Your task to perform on an android device: open chrome and create a bookmark for the current page Image 0: 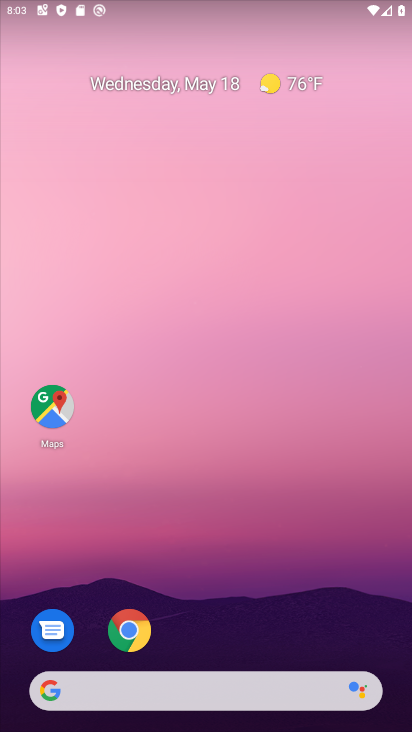
Step 0: click (139, 623)
Your task to perform on an android device: open chrome and create a bookmark for the current page Image 1: 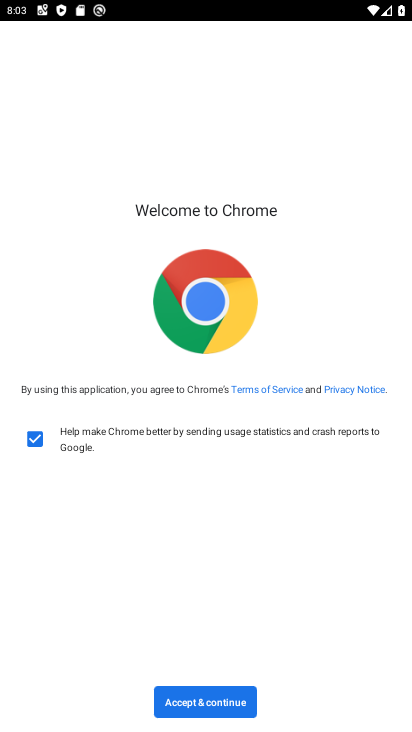
Step 1: click (172, 701)
Your task to perform on an android device: open chrome and create a bookmark for the current page Image 2: 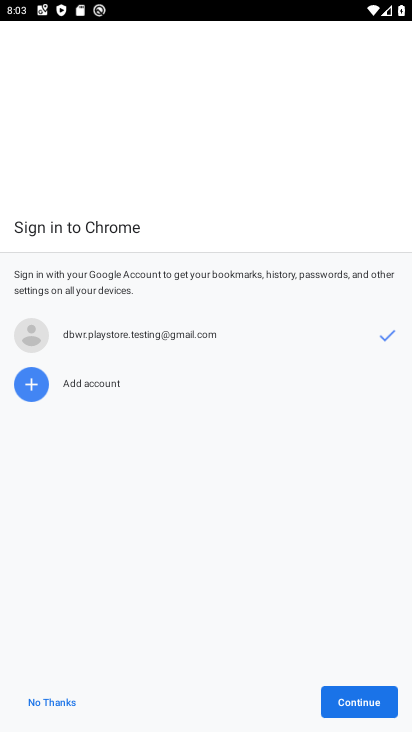
Step 2: click (353, 710)
Your task to perform on an android device: open chrome and create a bookmark for the current page Image 3: 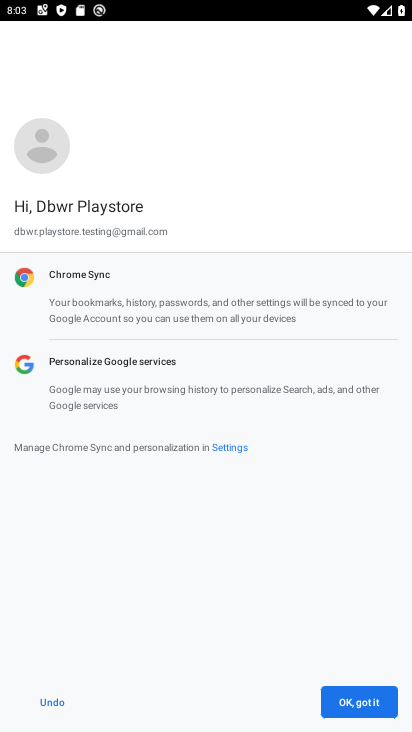
Step 3: click (355, 708)
Your task to perform on an android device: open chrome and create a bookmark for the current page Image 4: 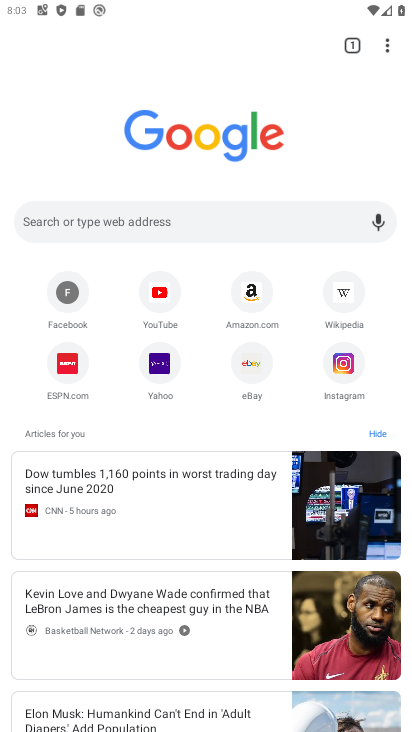
Step 4: click (390, 43)
Your task to perform on an android device: open chrome and create a bookmark for the current page Image 5: 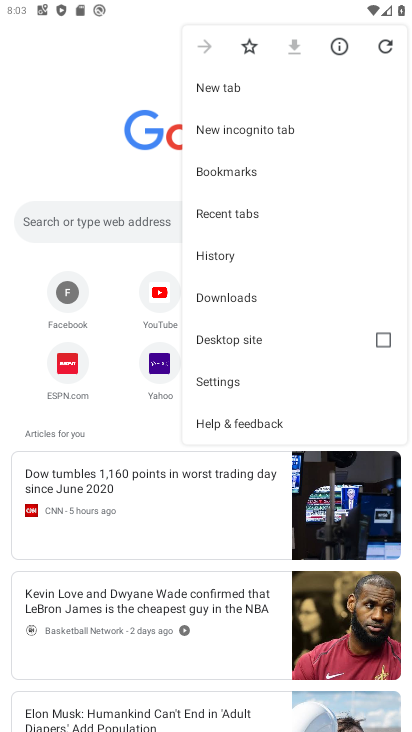
Step 5: click (246, 42)
Your task to perform on an android device: open chrome and create a bookmark for the current page Image 6: 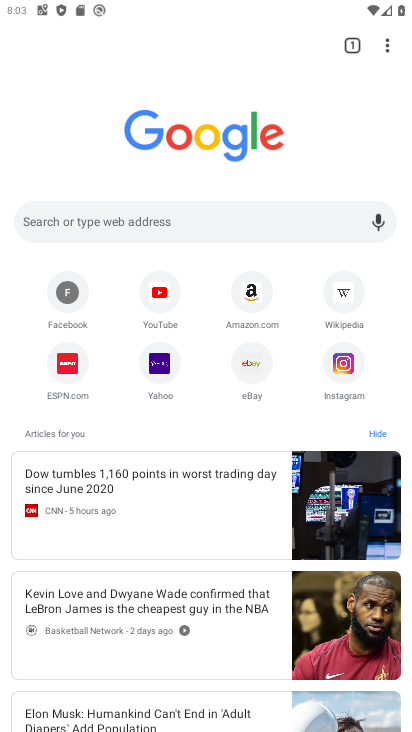
Step 6: click (386, 44)
Your task to perform on an android device: open chrome and create a bookmark for the current page Image 7: 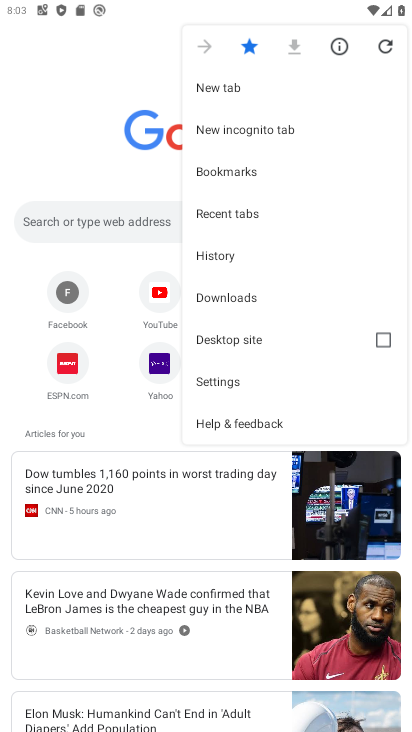
Step 7: task complete